Your task to perform on an android device: Open the calendar app, open the side menu, and click the "Day" option Image 0: 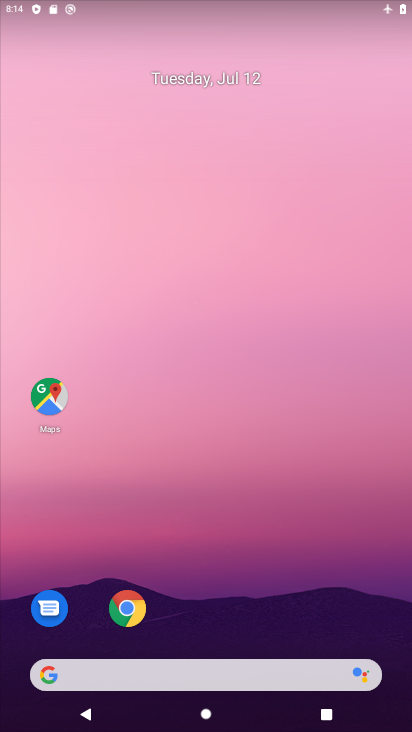
Step 0: drag from (236, 643) to (176, 112)
Your task to perform on an android device: Open the calendar app, open the side menu, and click the "Day" option Image 1: 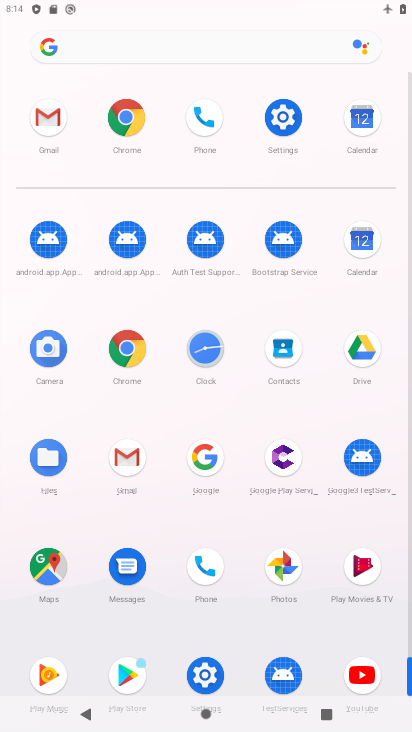
Step 1: click (368, 240)
Your task to perform on an android device: Open the calendar app, open the side menu, and click the "Day" option Image 2: 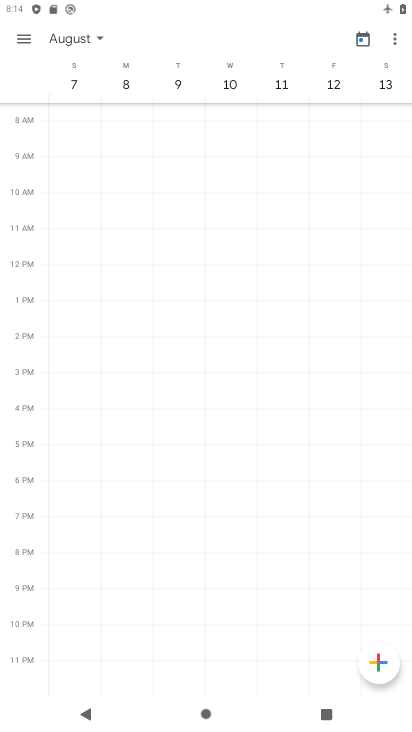
Step 2: click (15, 32)
Your task to perform on an android device: Open the calendar app, open the side menu, and click the "Day" option Image 3: 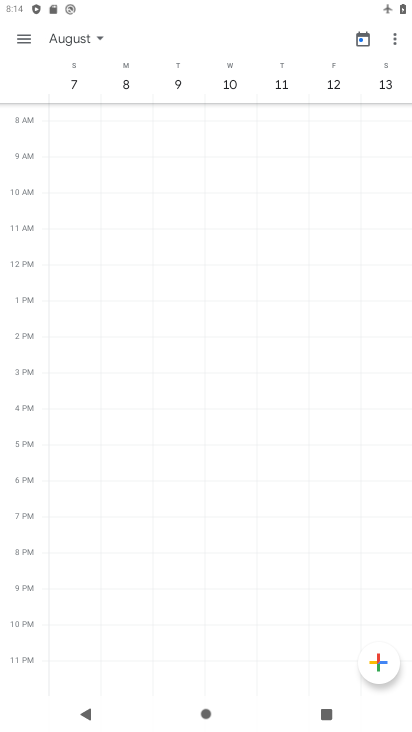
Step 3: click (18, 51)
Your task to perform on an android device: Open the calendar app, open the side menu, and click the "Day" option Image 4: 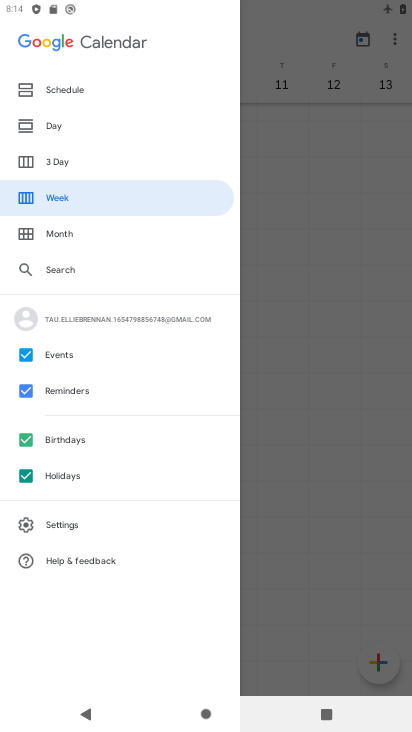
Step 4: click (31, 131)
Your task to perform on an android device: Open the calendar app, open the side menu, and click the "Day" option Image 5: 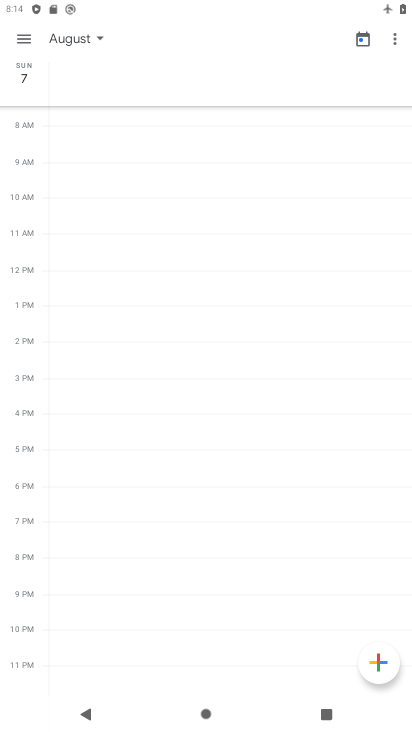
Step 5: task complete